Your task to perform on an android device: move a message to another label in the gmail app Image 0: 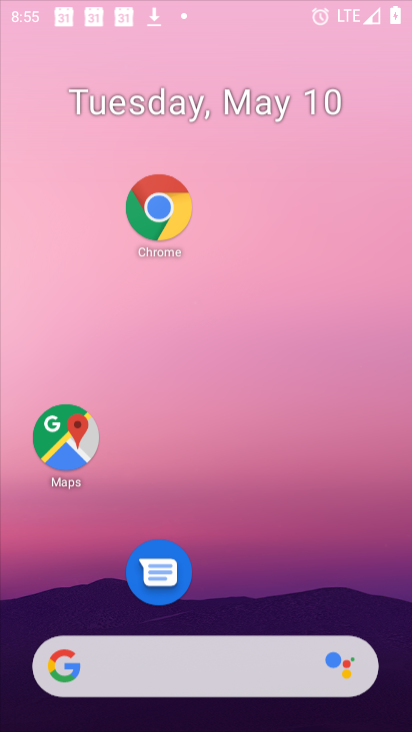
Step 0: click (291, 266)
Your task to perform on an android device: move a message to another label in the gmail app Image 1: 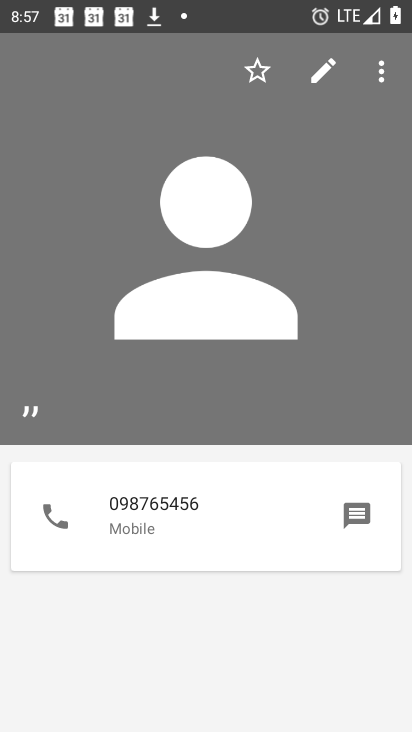
Step 1: press home button
Your task to perform on an android device: move a message to another label in the gmail app Image 2: 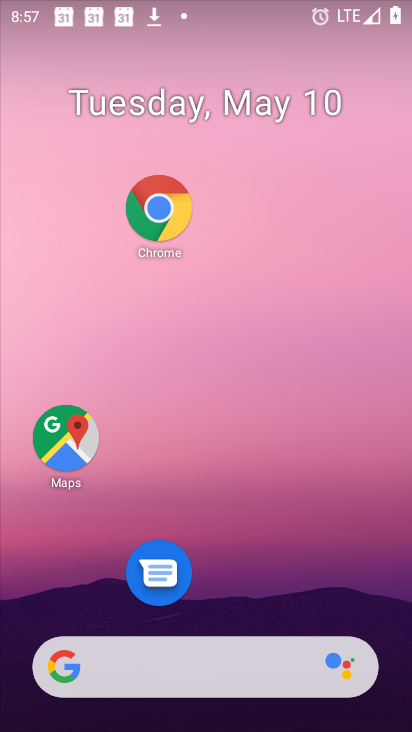
Step 2: drag from (250, 692) to (287, 243)
Your task to perform on an android device: move a message to another label in the gmail app Image 3: 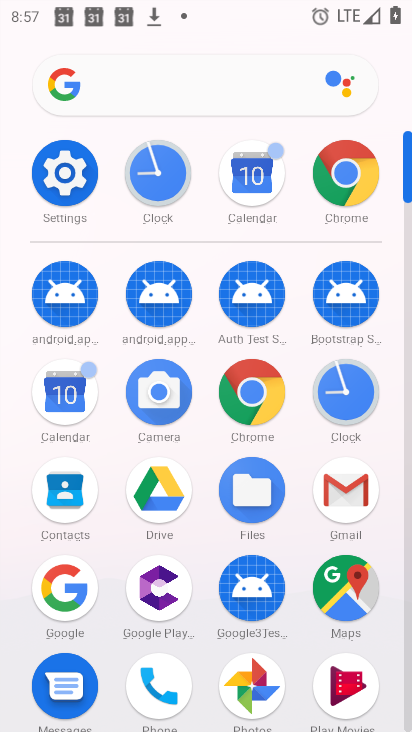
Step 3: click (331, 491)
Your task to perform on an android device: move a message to another label in the gmail app Image 4: 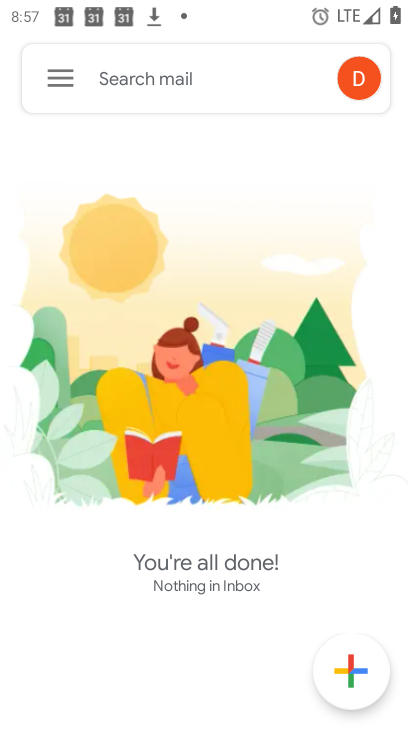
Step 4: click (53, 88)
Your task to perform on an android device: move a message to another label in the gmail app Image 5: 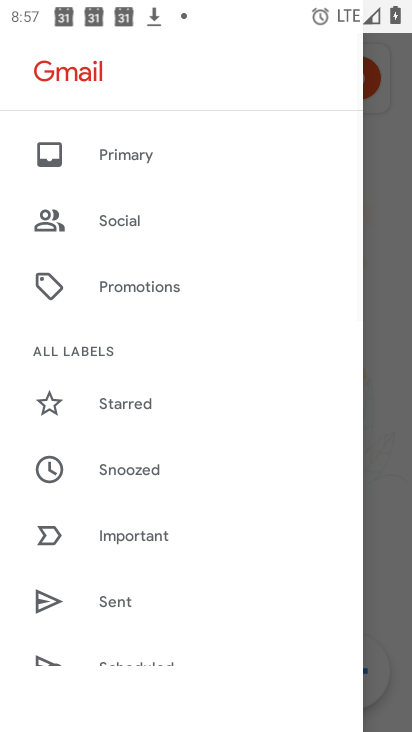
Step 5: drag from (126, 531) to (283, 270)
Your task to perform on an android device: move a message to another label in the gmail app Image 6: 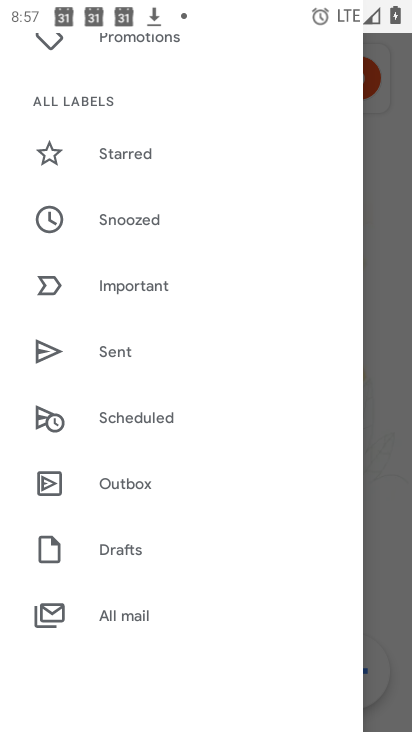
Step 6: drag from (147, 521) to (259, 282)
Your task to perform on an android device: move a message to another label in the gmail app Image 7: 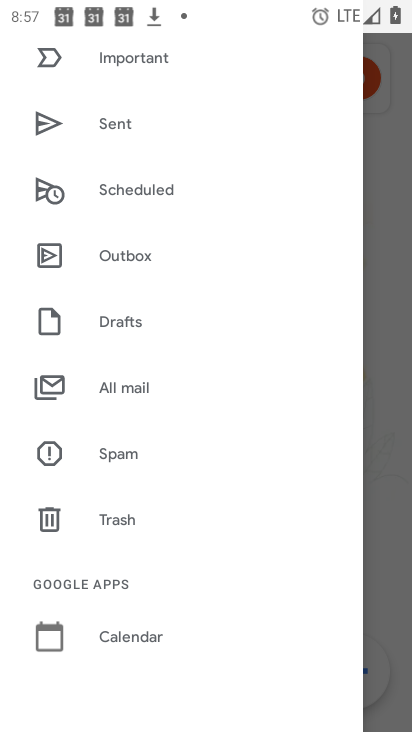
Step 7: drag from (143, 576) to (254, 309)
Your task to perform on an android device: move a message to another label in the gmail app Image 8: 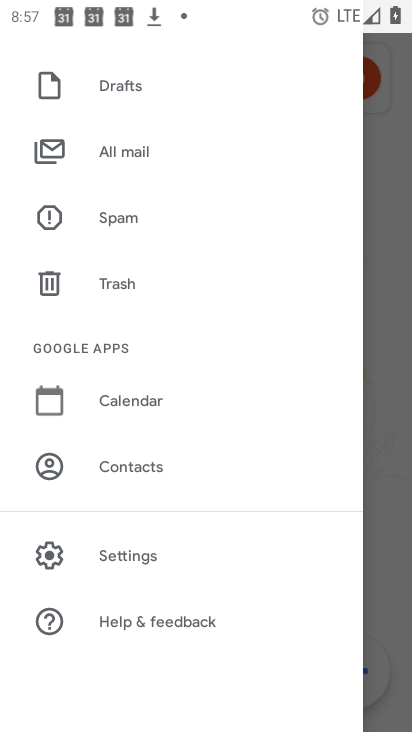
Step 8: click (137, 554)
Your task to perform on an android device: move a message to another label in the gmail app Image 9: 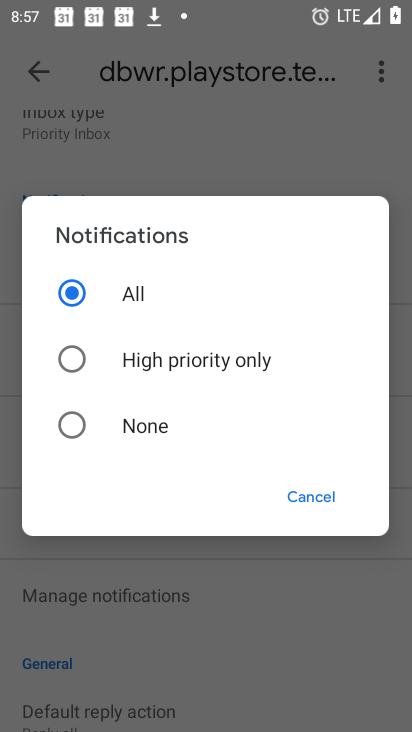
Step 9: click (316, 498)
Your task to perform on an android device: move a message to another label in the gmail app Image 10: 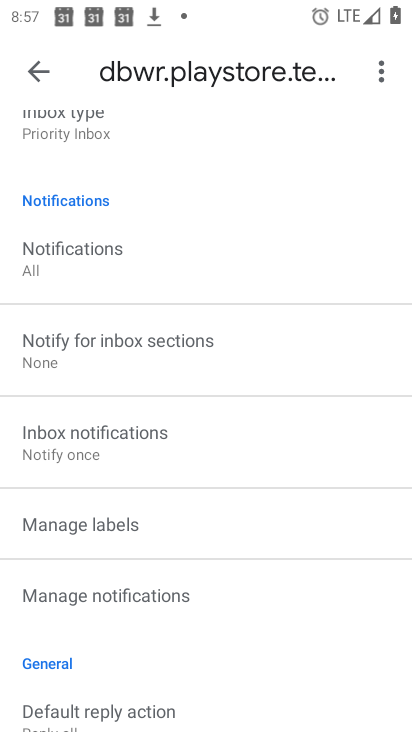
Step 10: click (136, 524)
Your task to perform on an android device: move a message to another label in the gmail app Image 11: 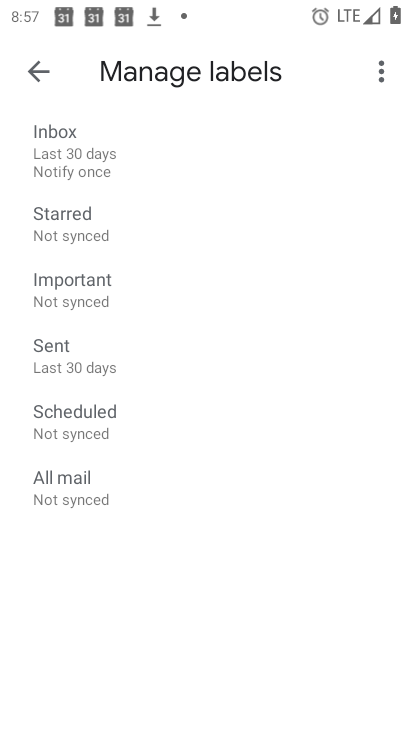
Step 11: click (90, 374)
Your task to perform on an android device: move a message to another label in the gmail app Image 12: 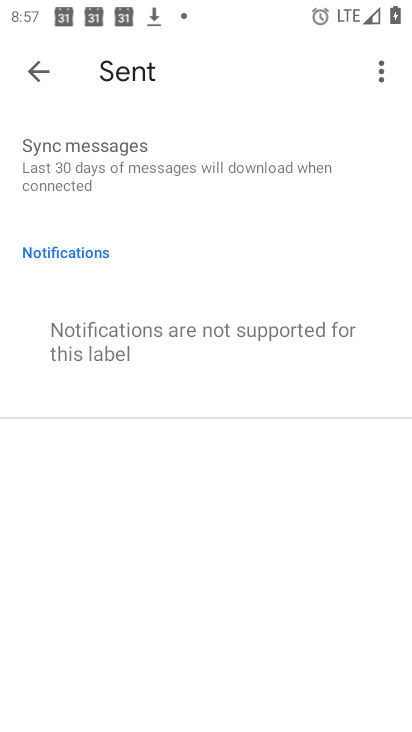
Step 12: task complete